Your task to perform on an android device: turn on data saver in the chrome app Image 0: 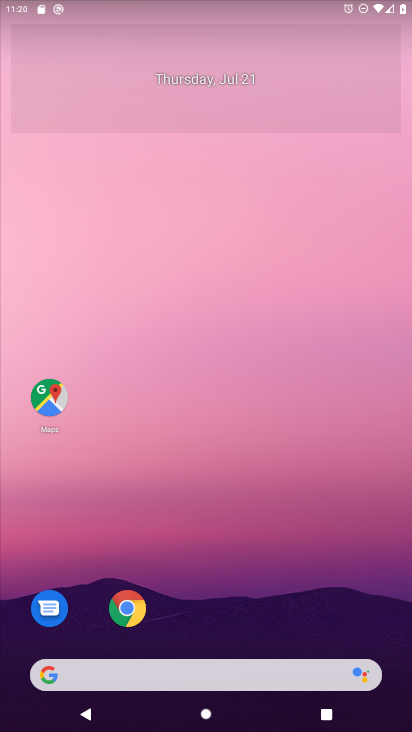
Step 0: drag from (331, 601) to (172, 28)
Your task to perform on an android device: turn on data saver in the chrome app Image 1: 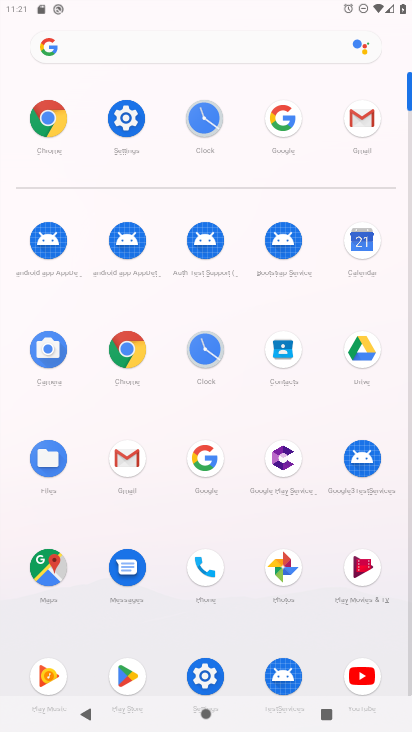
Step 1: click (134, 354)
Your task to perform on an android device: turn on data saver in the chrome app Image 2: 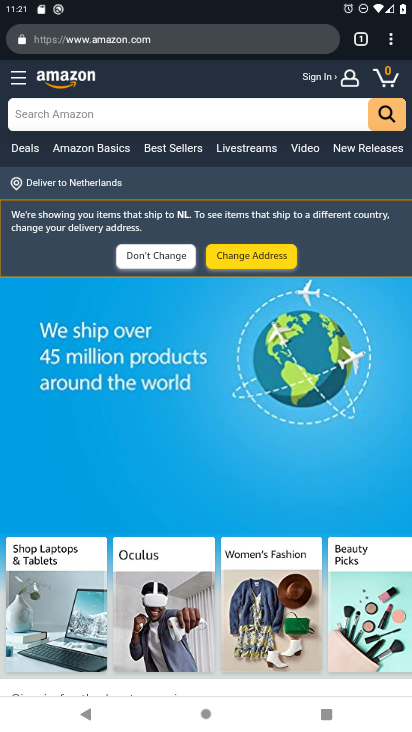
Step 2: click (394, 32)
Your task to perform on an android device: turn on data saver in the chrome app Image 3: 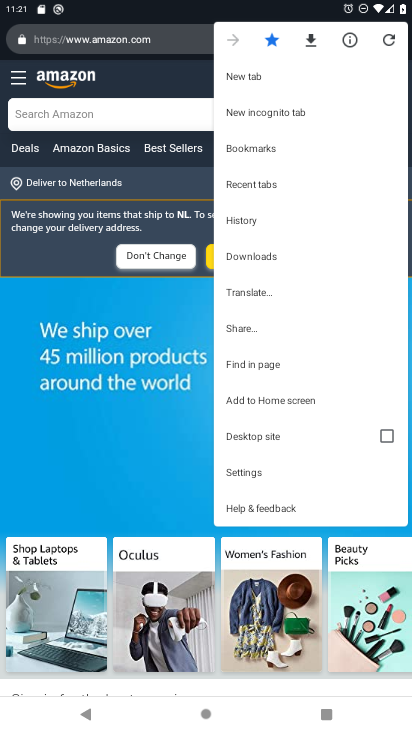
Step 3: click (251, 483)
Your task to perform on an android device: turn on data saver in the chrome app Image 4: 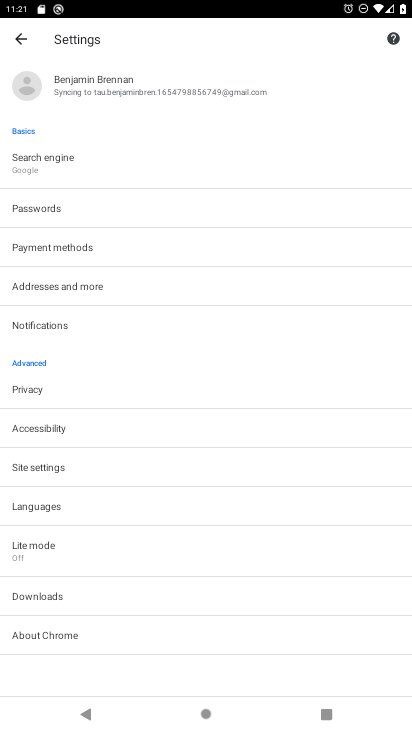
Step 4: click (37, 553)
Your task to perform on an android device: turn on data saver in the chrome app Image 5: 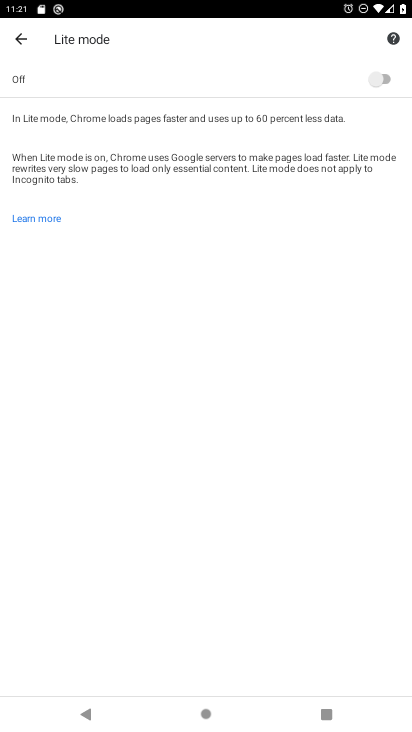
Step 5: click (382, 74)
Your task to perform on an android device: turn on data saver in the chrome app Image 6: 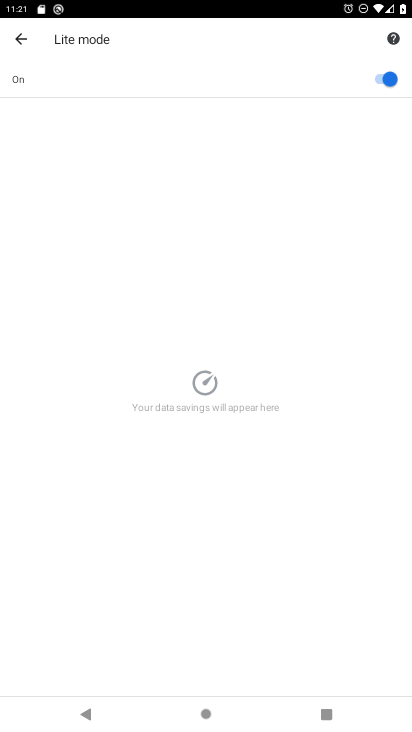
Step 6: task complete